Your task to perform on an android device: refresh tabs in the chrome app Image 0: 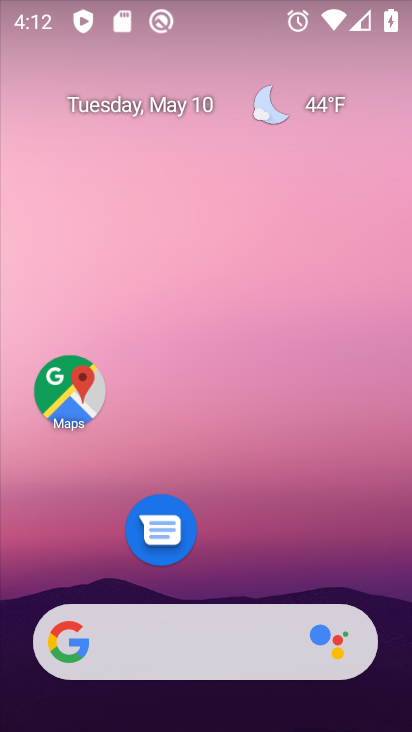
Step 0: drag from (241, 615) to (306, 127)
Your task to perform on an android device: refresh tabs in the chrome app Image 1: 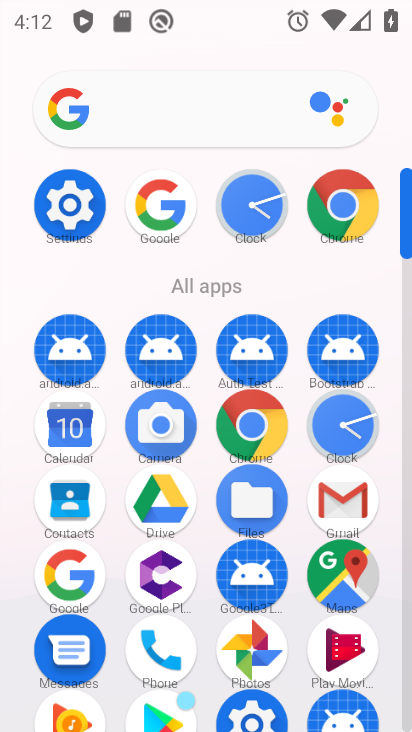
Step 1: click (346, 205)
Your task to perform on an android device: refresh tabs in the chrome app Image 2: 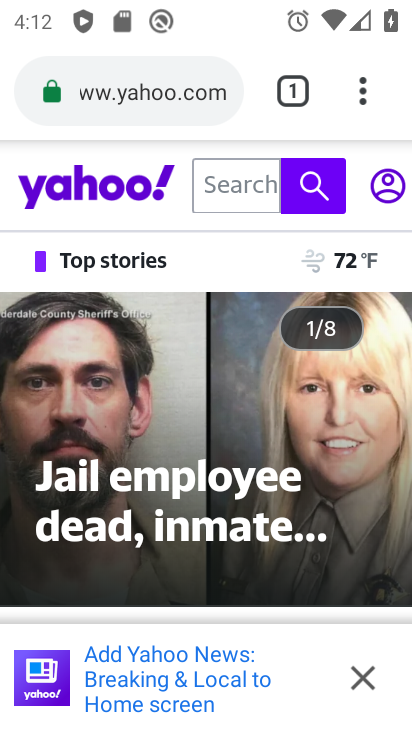
Step 2: click (368, 77)
Your task to perform on an android device: refresh tabs in the chrome app Image 3: 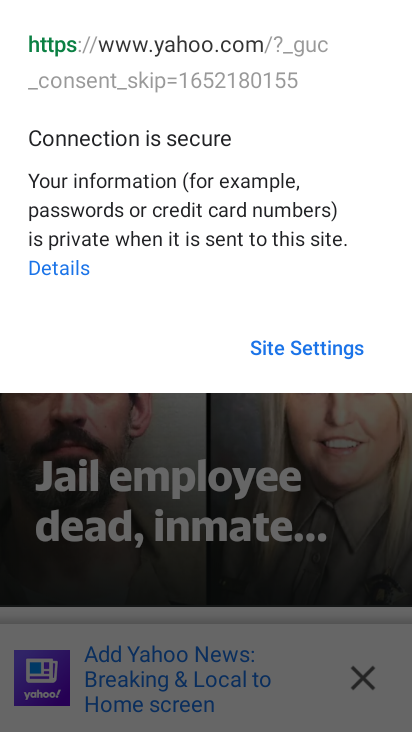
Step 3: click (229, 449)
Your task to perform on an android device: refresh tabs in the chrome app Image 4: 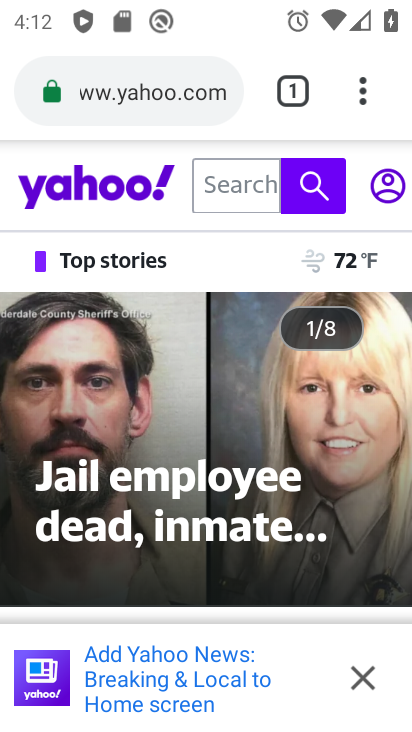
Step 4: task complete